Your task to perform on an android device: Open Google Maps and go to "Timeline" Image 0: 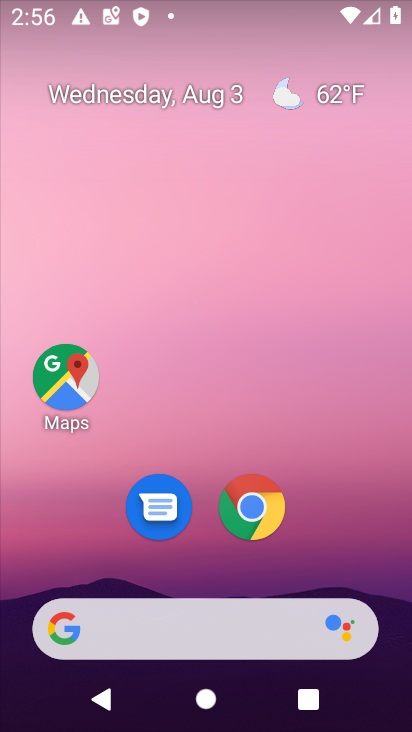
Step 0: click (66, 385)
Your task to perform on an android device: Open Google Maps and go to "Timeline" Image 1: 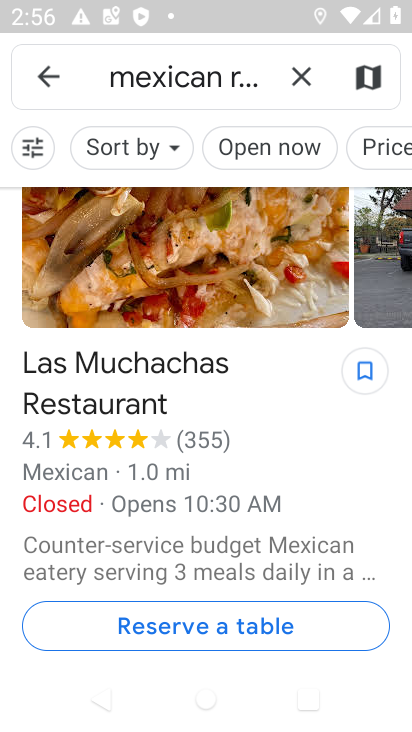
Step 1: press back button
Your task to perform on an android device: Open Google Maps and go to "Timeline" Image 2: 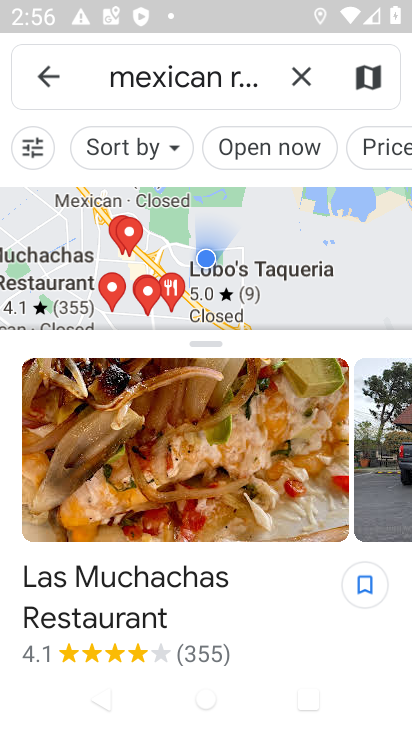
Step 2: press back button
Your task to perform on an android device: Open Google Maps and go to "Timeline" Image 3: 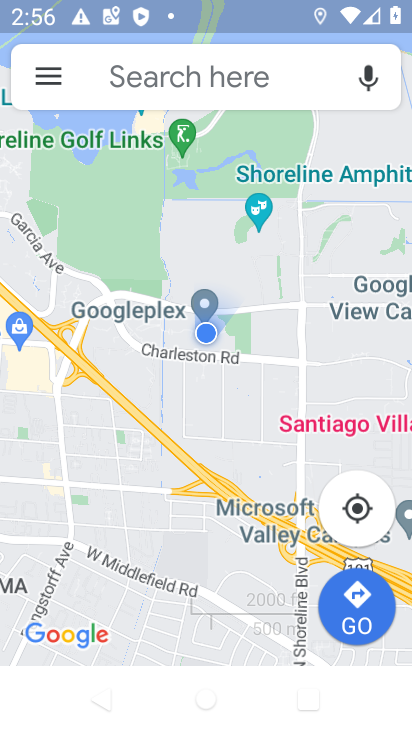
Step 3: click (53, 62)
Your task to perform on an android device: Open Google Maps and go to "Timeline" Image 4: 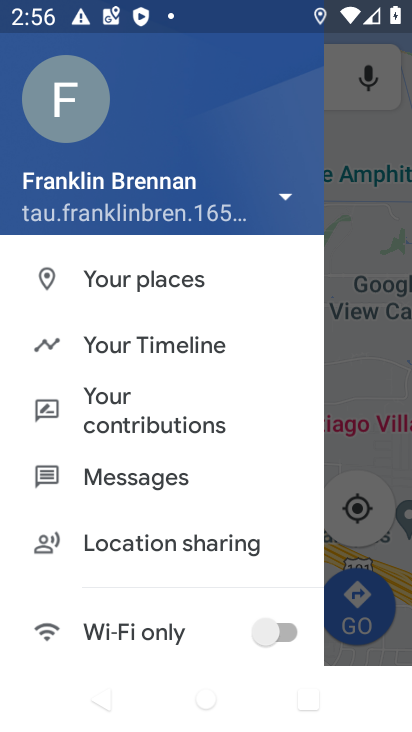
Step 4: click (111, 342)
Your task to perform on an android device: Open Google Maps and go to "Timeline" Image 5: 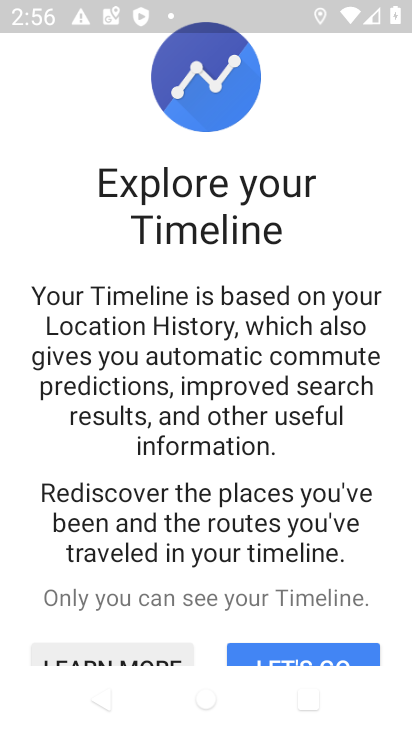
Step 5: task complete